Your task to perform on an android device: set the timer Image 0: 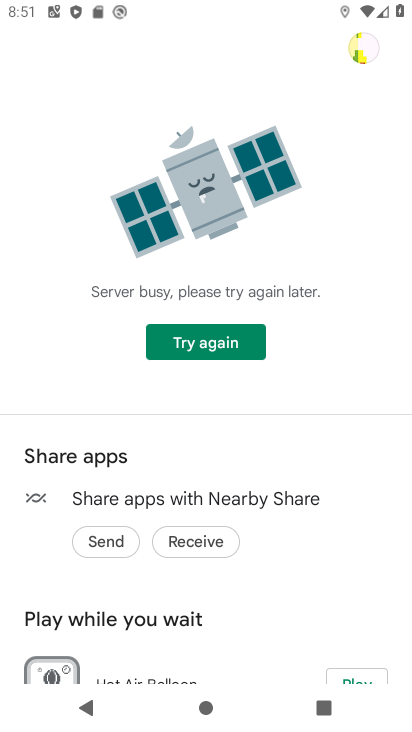
Step 0: press home button
Your task to perform on an android device: set the timer Image 1: 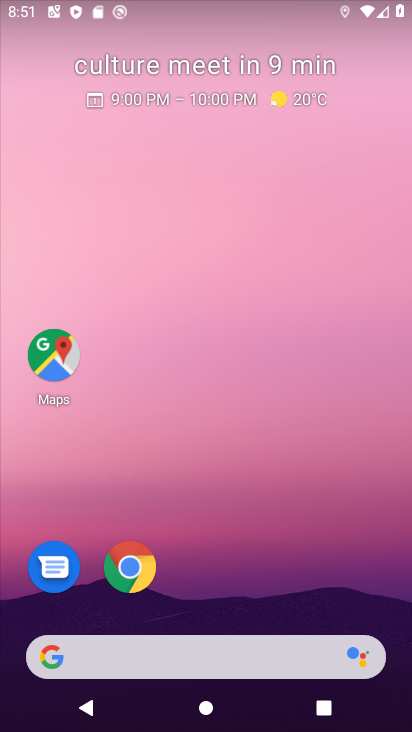
Step 1: drag from (188, 593) to (225, 90)
Your task to perform on an android device: set the timer Image 2: 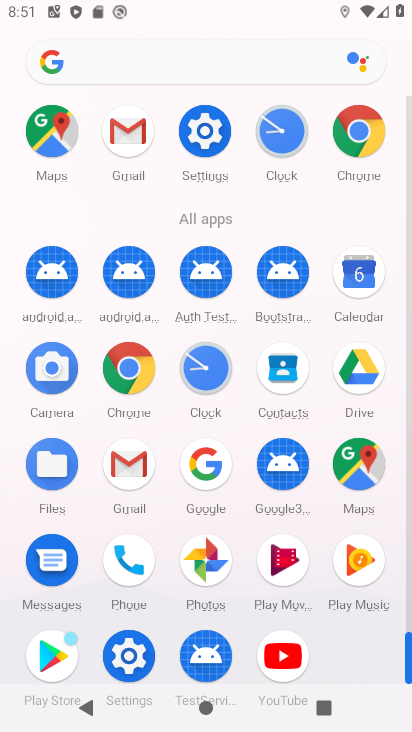
Step 2: click (285, 135)
Your task to perform on an android device: set the timer Image 3: 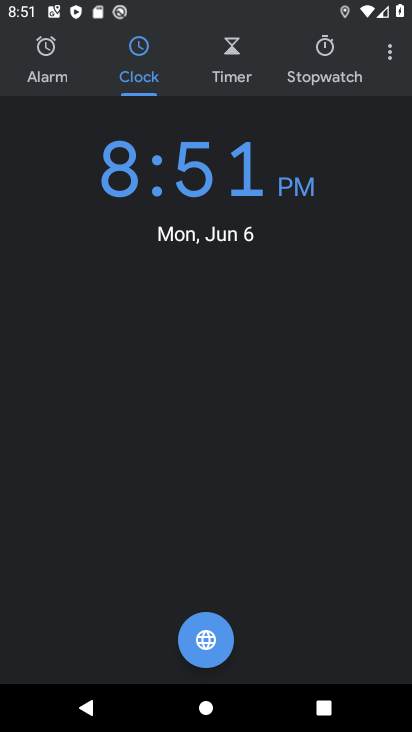
Step 3: click (285, 135)
Your task to perform on an android device: set the timer Image 4: 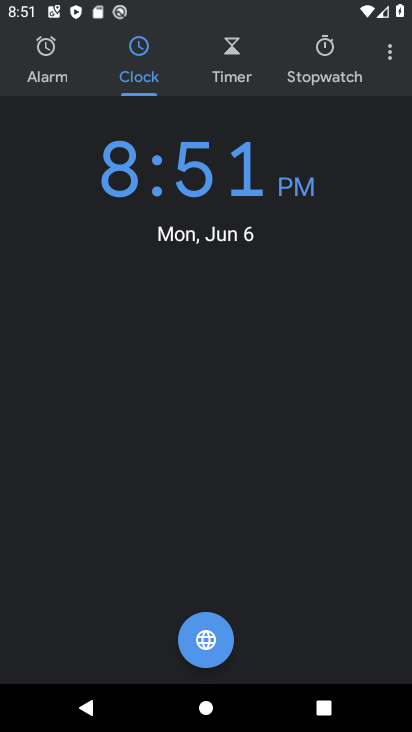
Step 4: click (389, 46)
Your task to perform on an android device: set the timer Image 5: 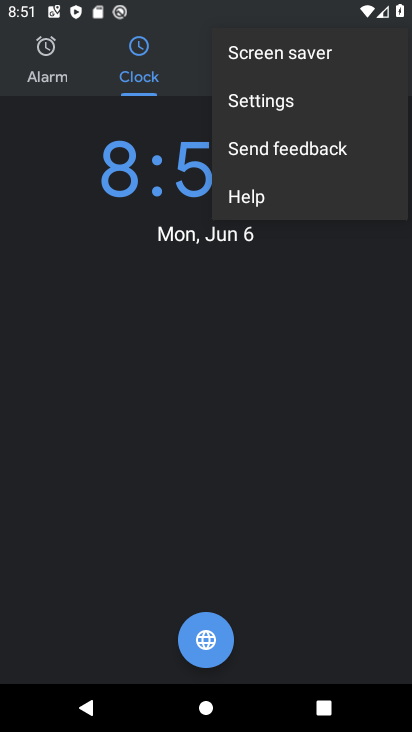
Step 5: click (290, 98)
Your task to perform on an android device: set the timer Image 6: 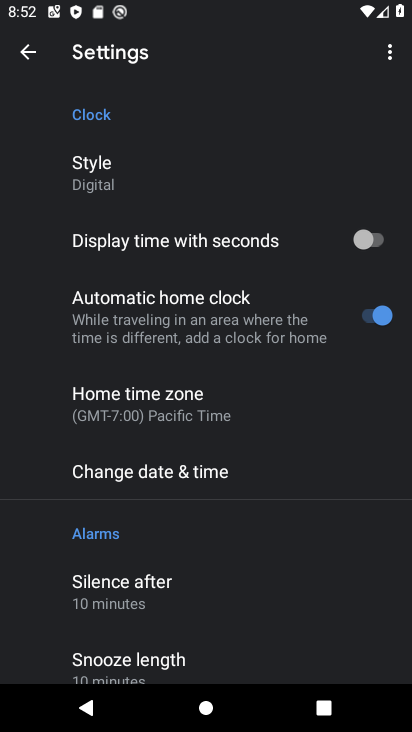
Step 6: task complete